Your task to perform on an android device: turn off sleep mode Image 0: 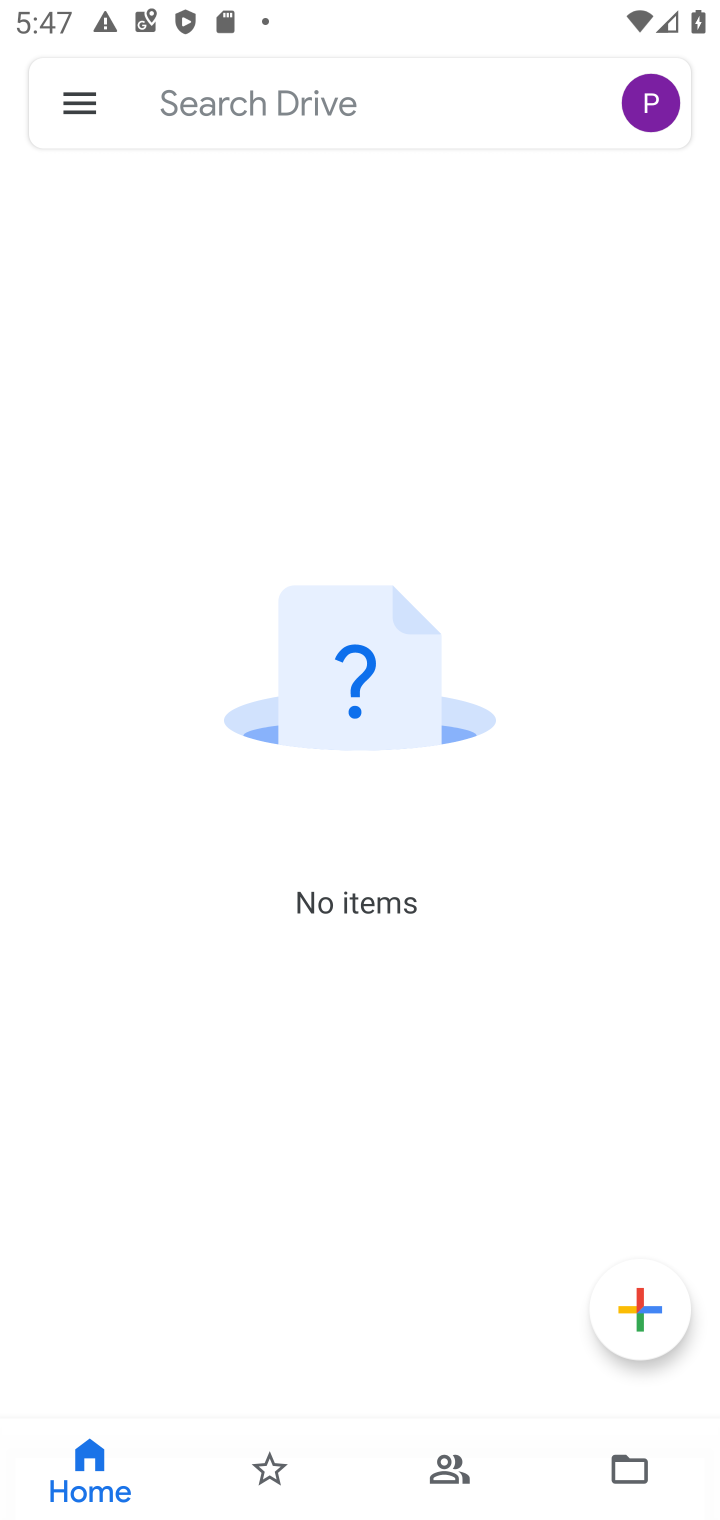
Step 0: task complete